Your task to perform on an android device: toggle show notifications on the lock screen Image 0: 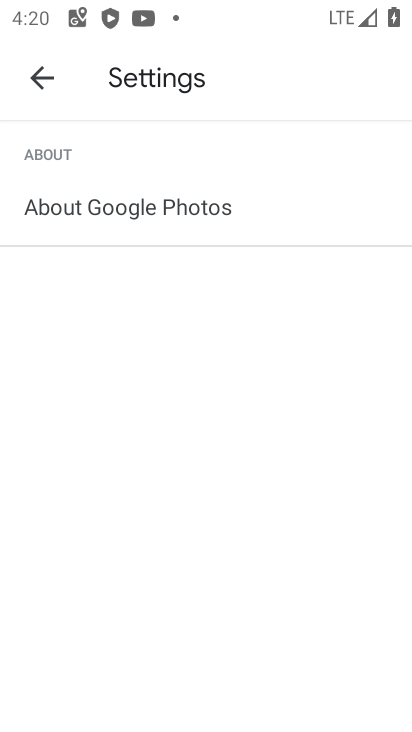
Step 0: press back button
Your task to perform on an android device: toggle show notifications on the lock screen Image 1: 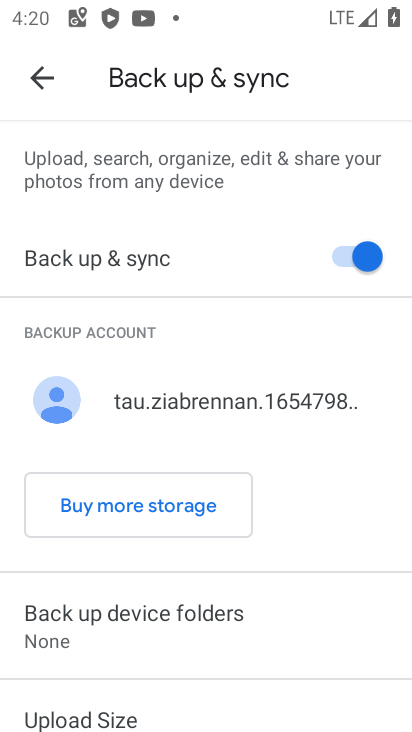
Step 1: press back button
Your task to perform on an android device: toggle show notifications on the lock screen Image 2: 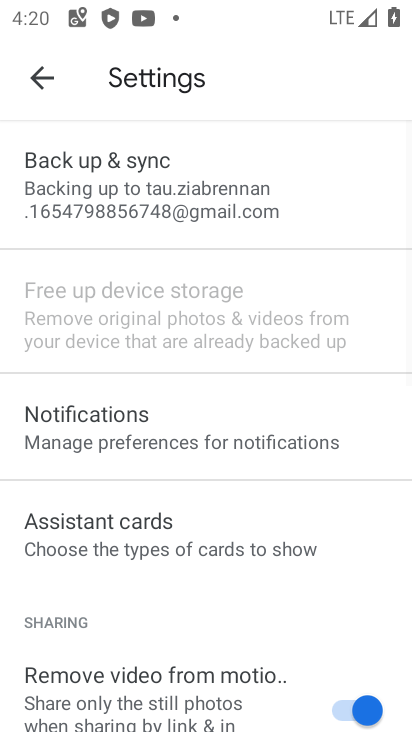
Step 2: press back button
Your task to perform on an android device: toggle show notifications on the lock screen Image 3: 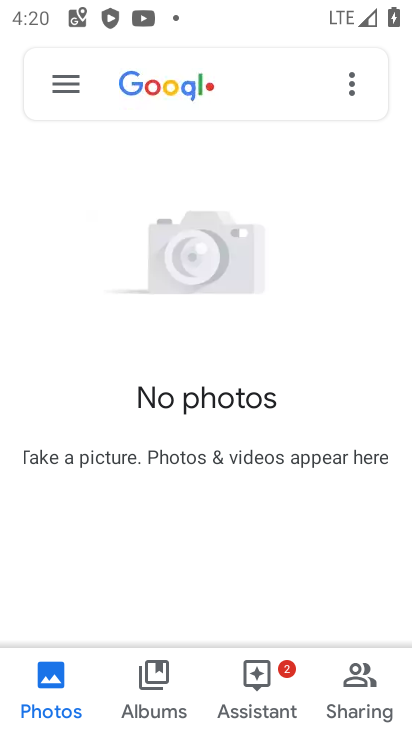
Step 3: press back button
Your task to perform on an android device: toggle show notifications on the lock screen Image 4: 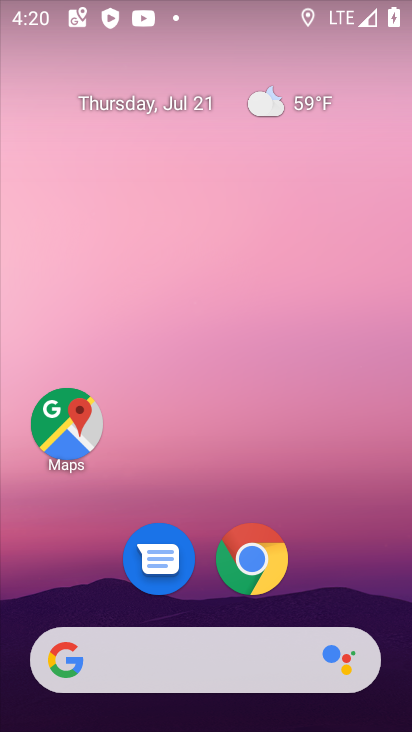
Step 4: drag from (69, 499) to (169, 7)
Your task to perform on an android device: toggle show notifications on the lock screen Image 5: 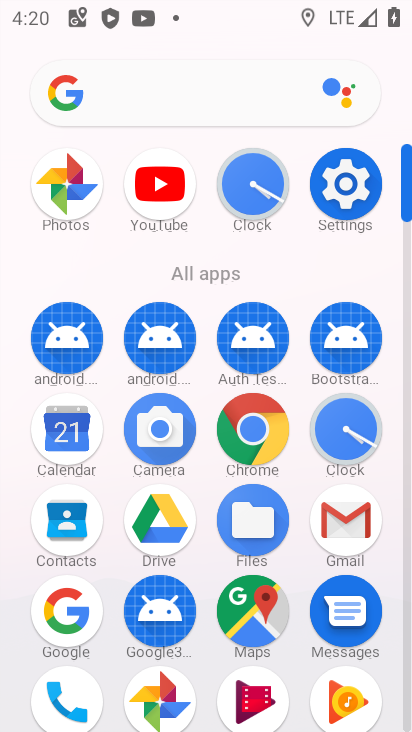
Step 5: click (342, 190)
Your task to perform on an android device: toggle show notifications on the lock screen Image 6: 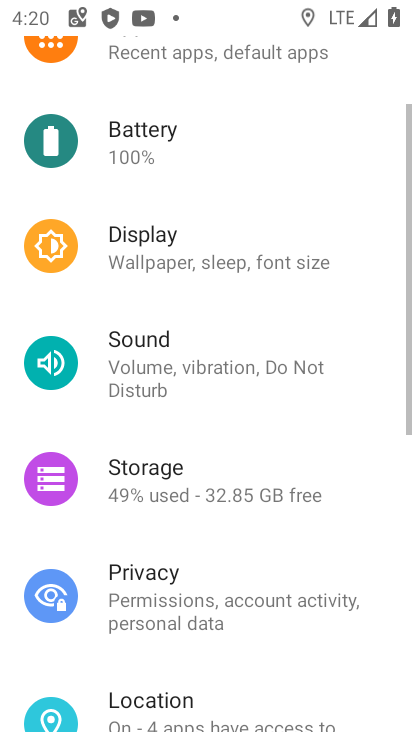
Step 6: drag from (259, 214) to (234, 725)
Your task to perform on an android device: toggle show notifications on the lock screen Image 7: 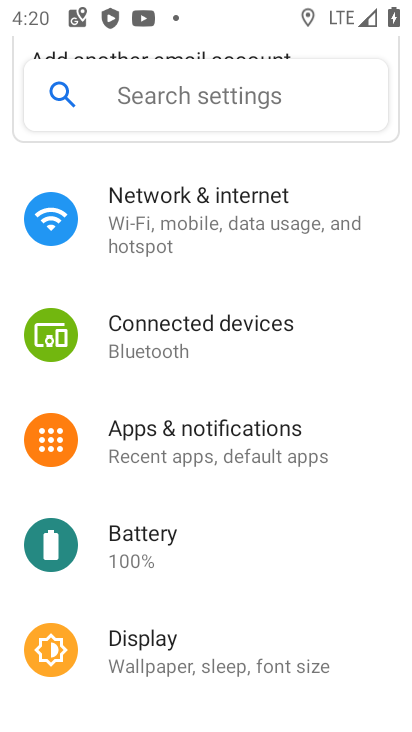
Step 7: click (238, 452)
Your task to perform on an android device: toggle show notifications on the lock screen Image 8: 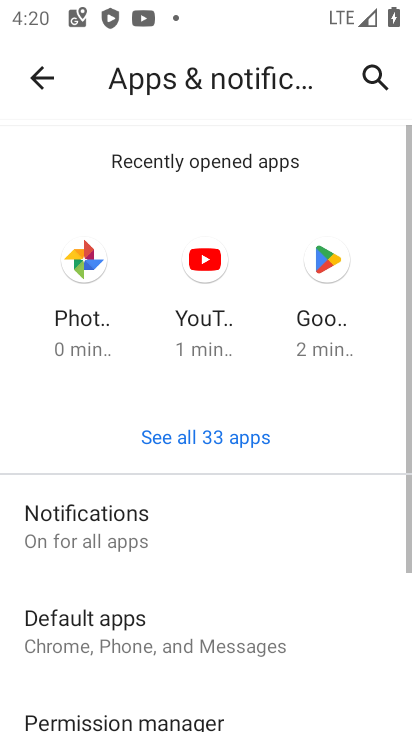
Step 8: click (134, 516)
Your task to perform on an android device: toggle show notifications on the lock screen Image 9: 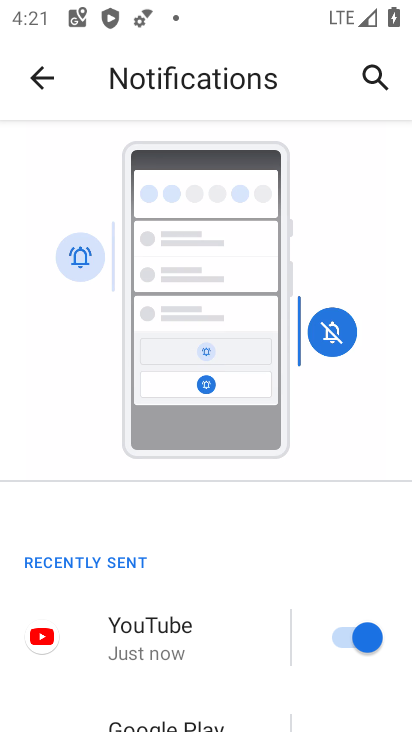
Step 9: drag from (156, 667) to (280, 72)
Your task to perform on an android device: toggle show notifications on the lock screen Image 10: 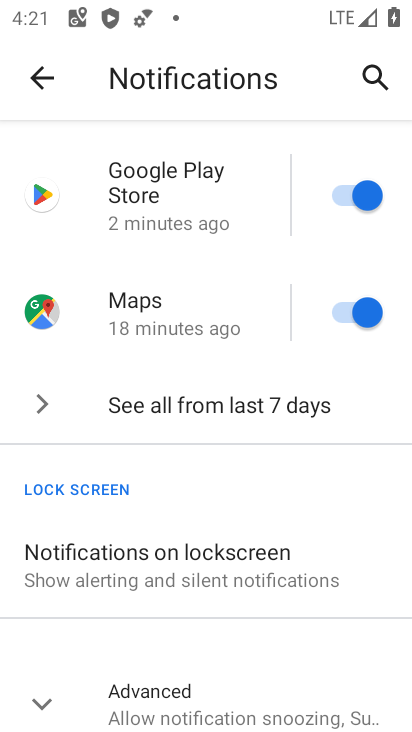
Step 10: click (132, 563)
Your task to perform on an android device: toggle show notifications on the lock screen Image 11: 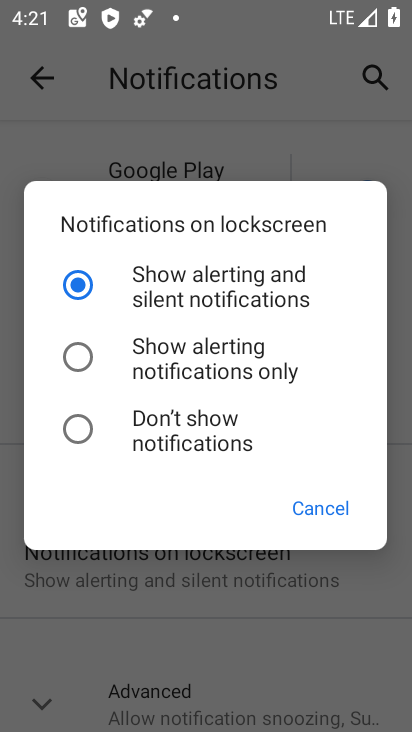
Step 11: click (80, 276)
Your task to perform on an android device: toggle show notifications on the lock screen Image 12: 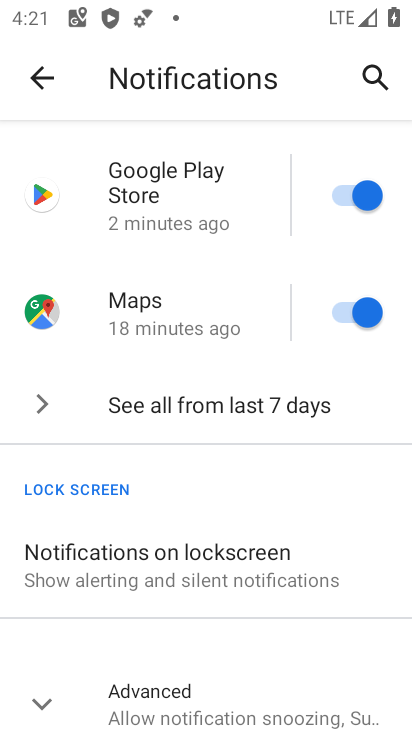
Step 12: task complete